Your task to perform on an android device: change the clock style Image 0: 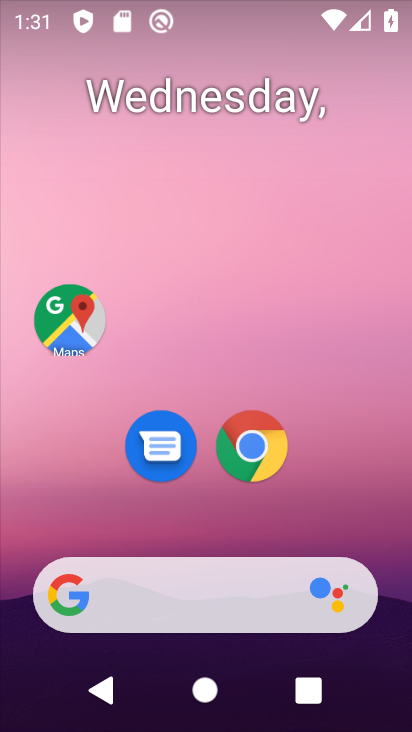
Step 0: drag from (352, 440) to (275, 23)
Your task to perform on an android device: change the clock style Image 1: 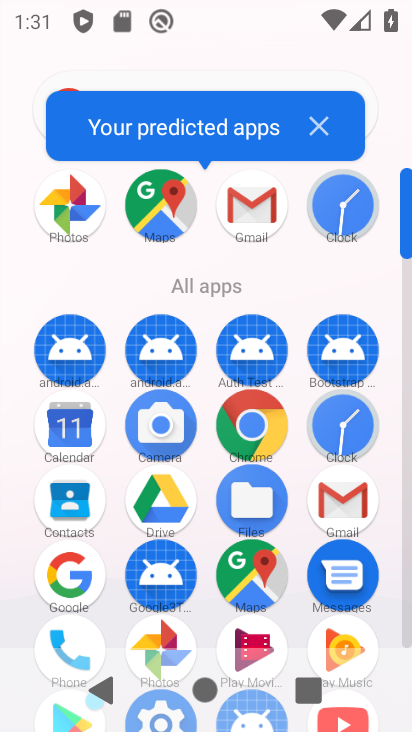
Step 1: click (335, 223)
Your task to perform on an android device: change the clock style Image 2: 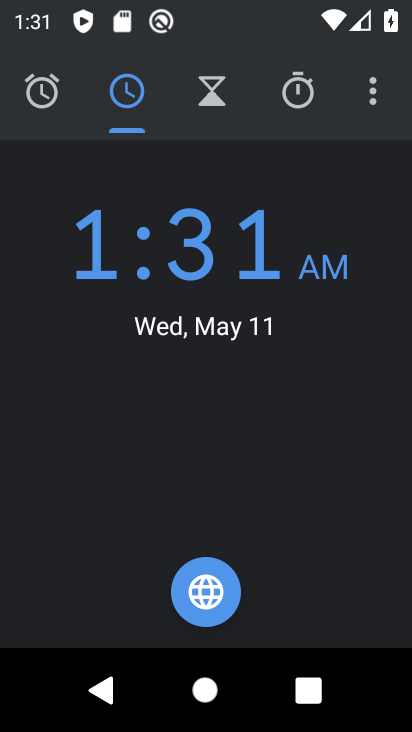
Step 2: click (363, 95)
Your task to perform on an android device: change the clock style Image 3: 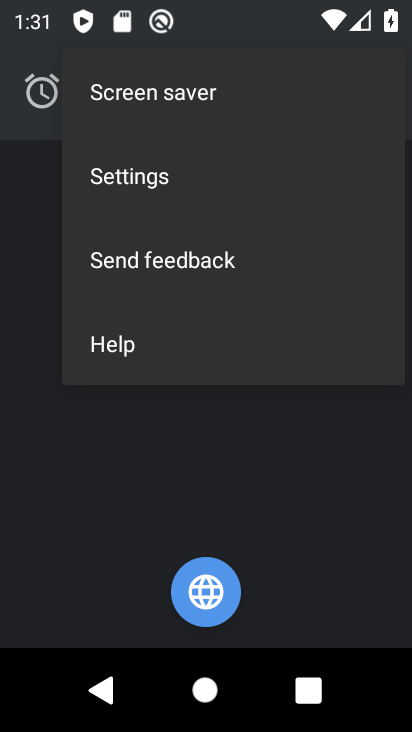
Step 3: click (193, 193)
Your task to perform on an android device: change the clock style Image 4: 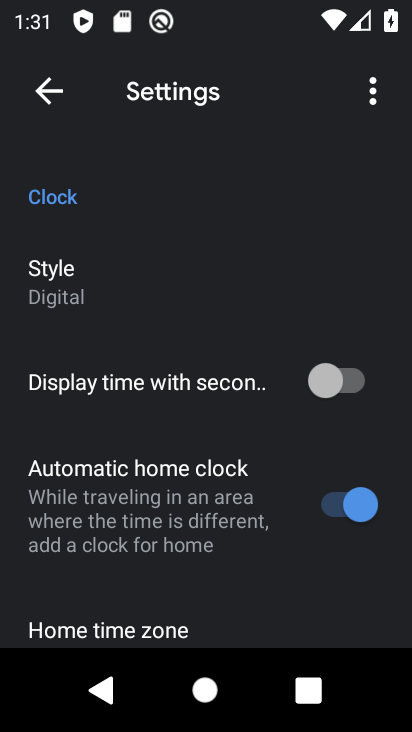
Step 4: click (182, 293)
Your task to perform on an android device: change the clock style Image 5: 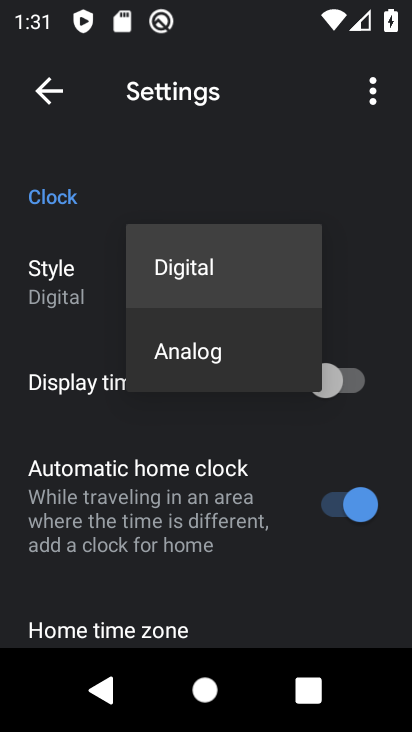
Step 5: click (192, 353)
Your task to perform on an android device: change the clock style Image 6: 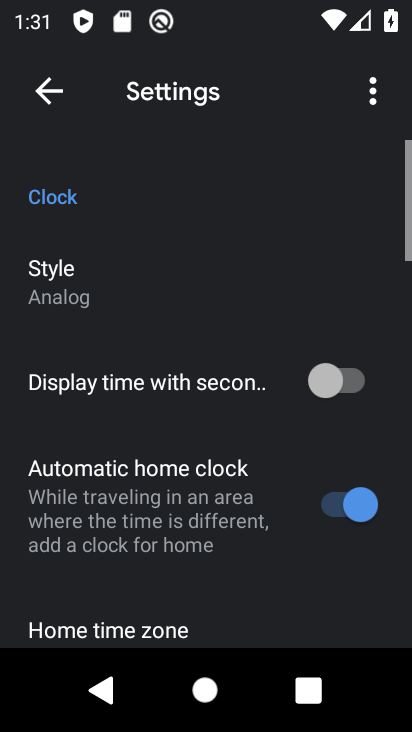
Step 6: task complete